Your task to perform on an android device: What's the weather? Image 0: 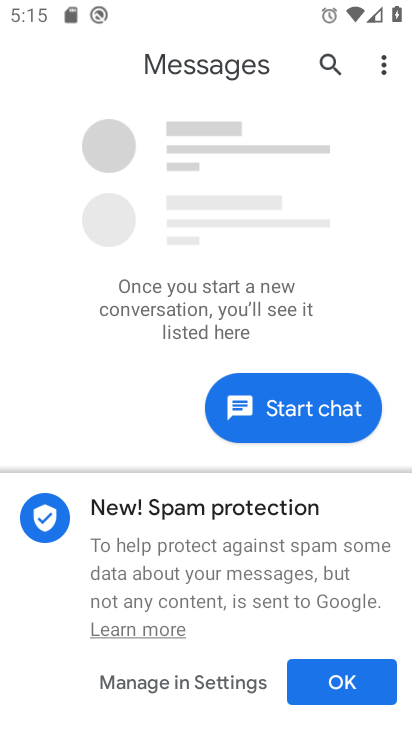
Step 0: press home button
Your task to perform on an android device: What's the weather? Image 1: 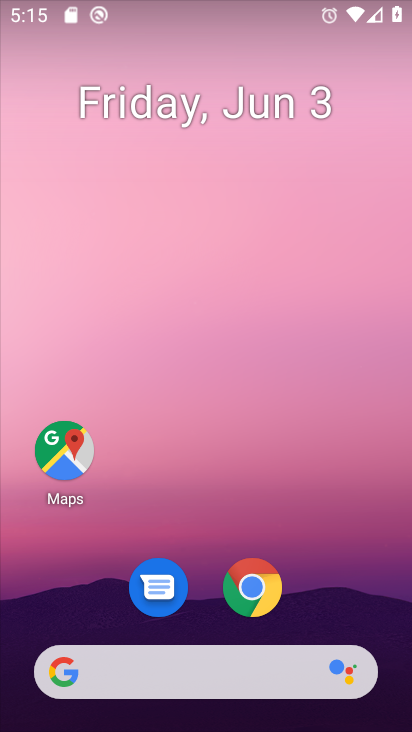
Step 1: click (191, 684)
Your task to perform on an android device: What's the weather? Image 2: 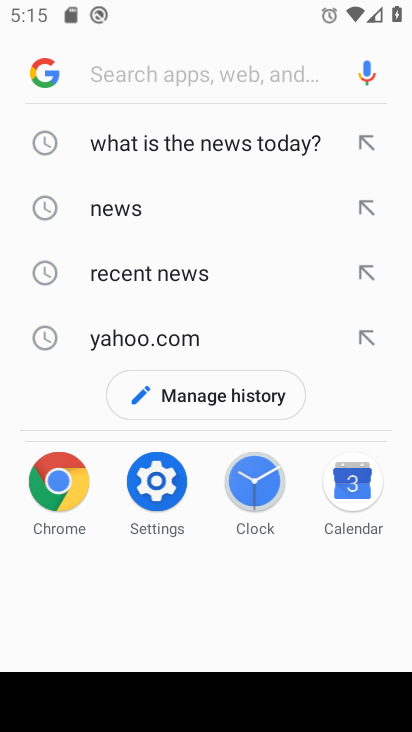
Step 2: type "weather today"
Your task to perform on an android device: What's the weather? Image 3: 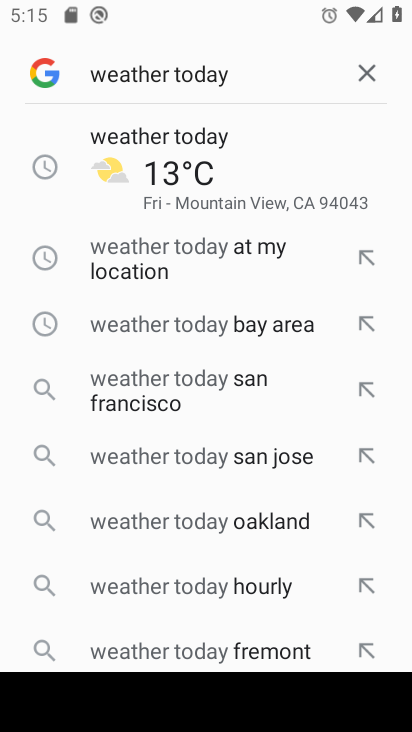
Step 3: click (215, 84)
Your task to perform on an android device: What's the weather? Image 4: 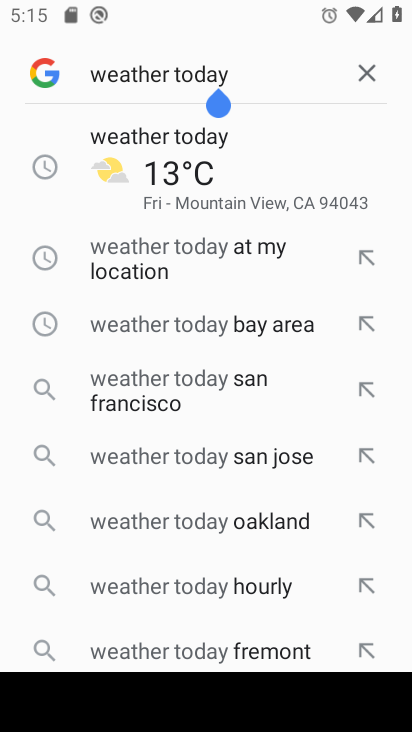
Step 4: click (232, 158)
Your task to perform on an android device: What's the weather? Image 5: 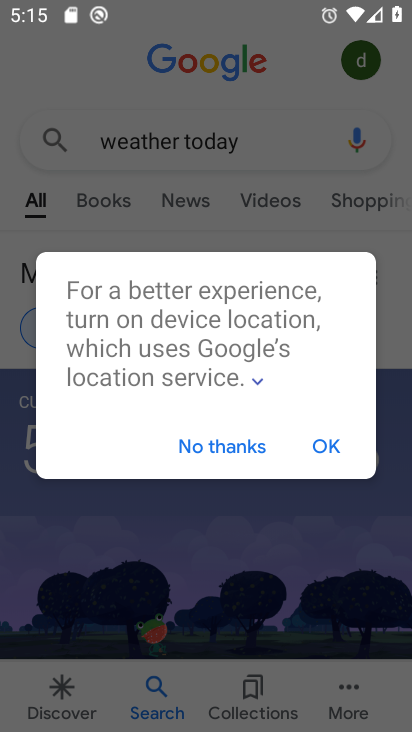
Step 5: click (223, 440)
Your task to perform on an android device: What's the weather? Image 6: 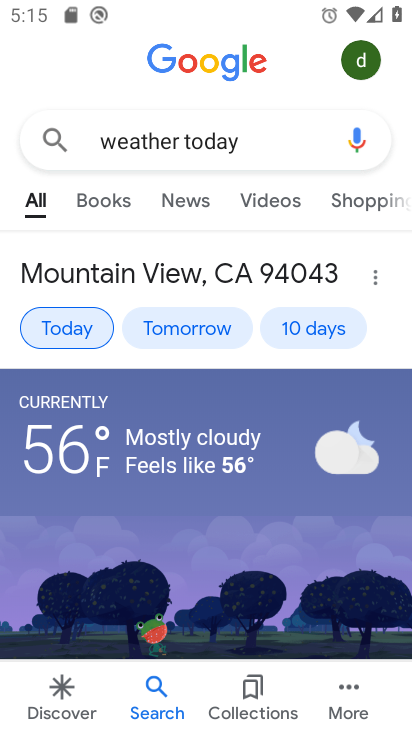
Step 6: task complete